Your task to perform on an android device: What's the weather today? Image 0: 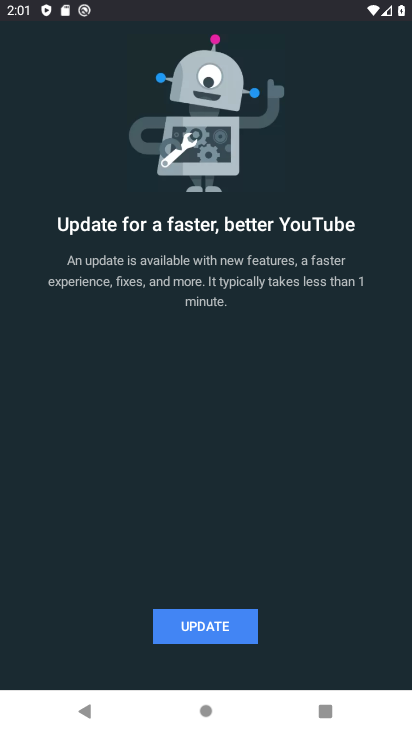
Step 0: press back button
Your task to perform on an android device: What's the weather today? Image 1: 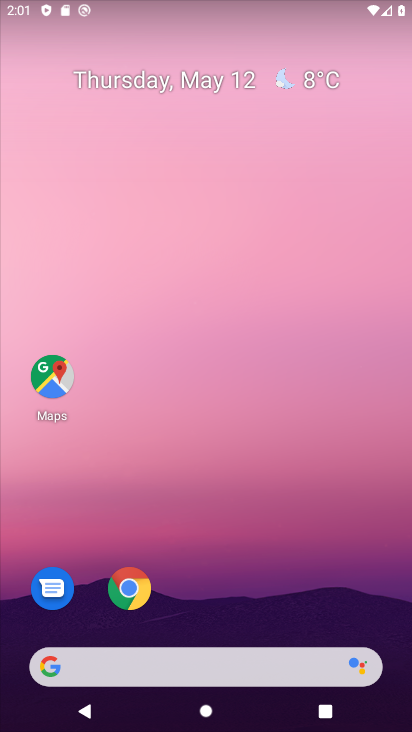
Step 1: drag from (346, 579) to (254, 193)
Your task to perform on an android device: What's the weather today? Image 2: 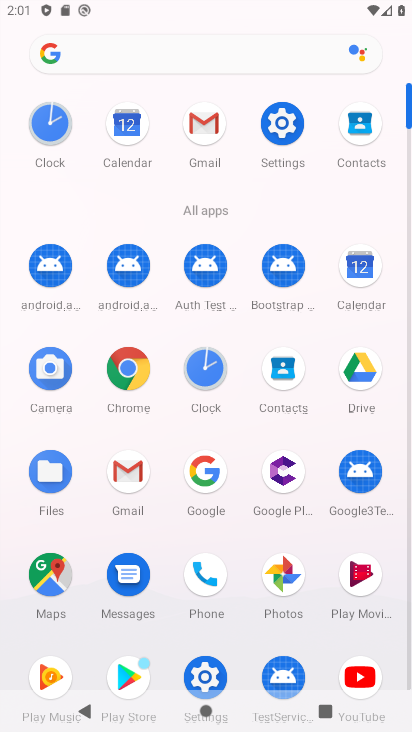
Step 2: click (194, 60)
Your task to perform on an android device: What's the weather today? Image 3: 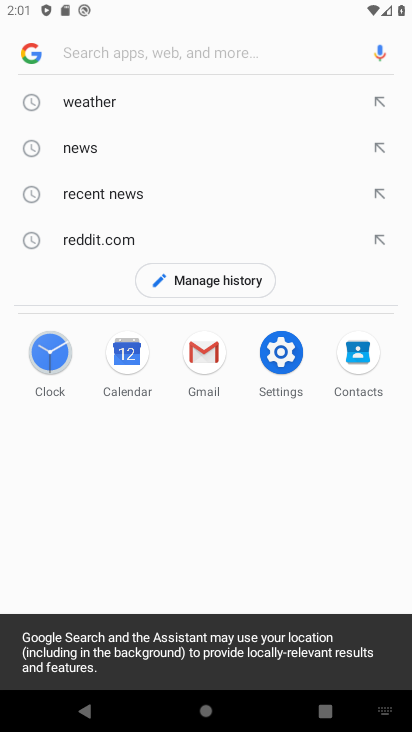
Step 3: click (157, 92)
Your task to perform on an android device: What's the weather today? Image 4: 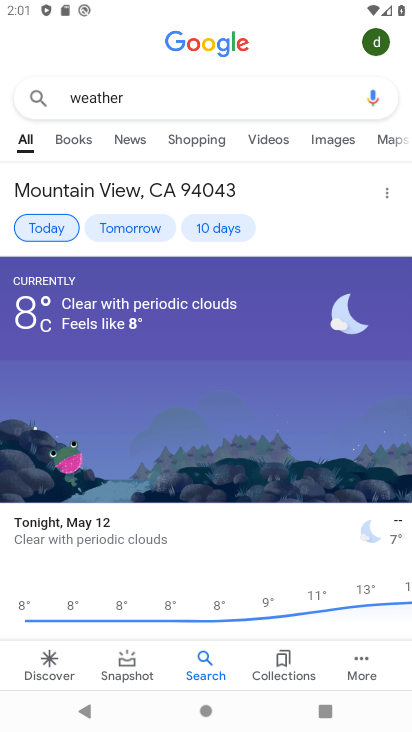
Step 4: task complete